Your task to perform on an android device: Search for vegetarian restaurants on Maps Image 0: 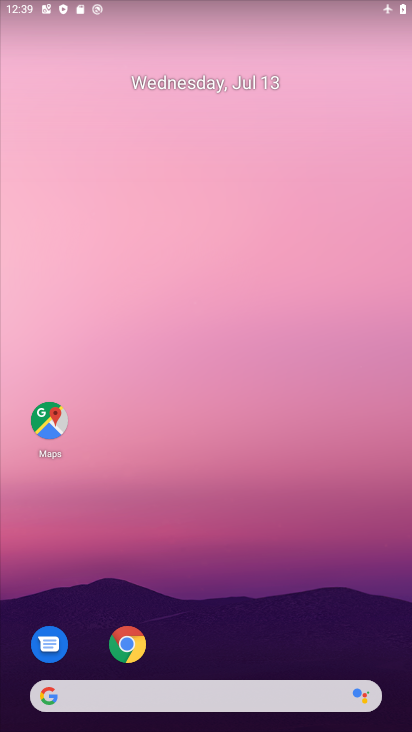
Step 0: drag from (305, 621) to (278, 123)
Your task to perform on an android device: Search for vegetarian restaurants on Maps Image 1: 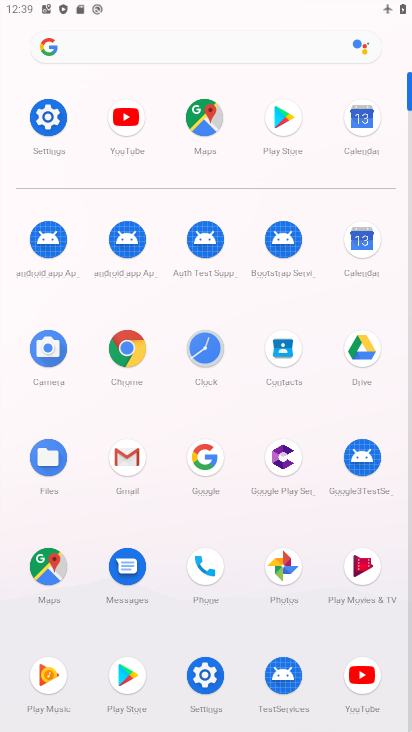
Step 1: click (206, 121)
Your task to perform on an android device: Search for vegetarian restaurants on Maps Image 2: 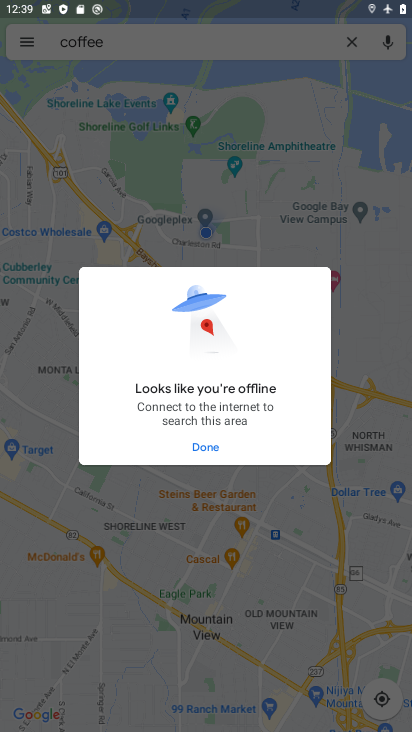
Step 2: click (207, 449)
Your task to perform on an android device: Search for vegetarian restaurants on Maps Image 3: 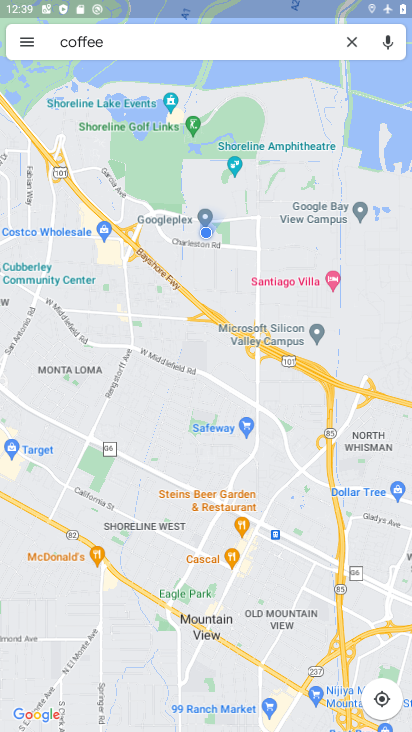
Step 3: click (221, 45)
Your task to perform on an android device: Search for vegetarian restaurants on Maps Image 4: 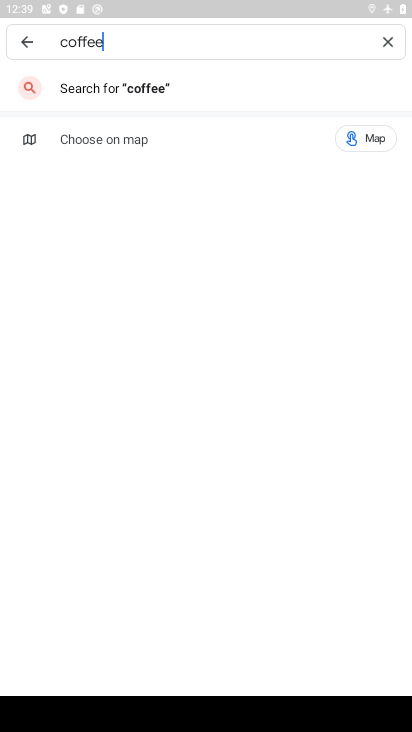
Step 4: click (385, 37)
Your task to perform on an android device: Search for vegetarian restaurants on Maps Image 5: 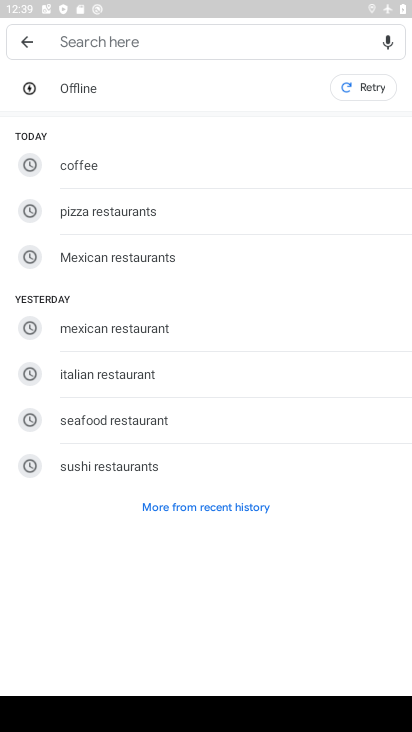
Step 5: type "vegetarian restaurants"
Your task to perform on an android device: Search for vegetarian restaurants on Maps Image 6: 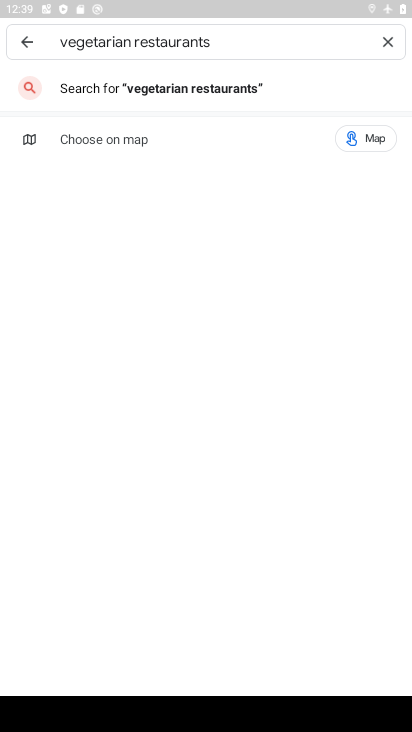
Step 6: press enter
Your task to perform on an android device: Search for vegetarian restaurants on Maps Image 7: 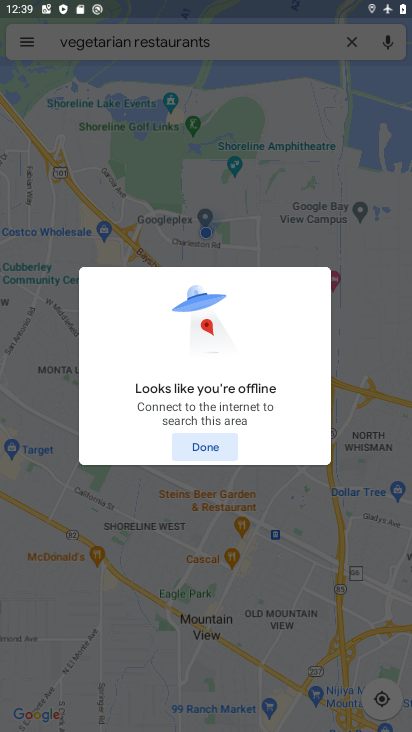
Step 7: task complete